Your task to perform on an android device: change the clock display to show seconds Image 0: 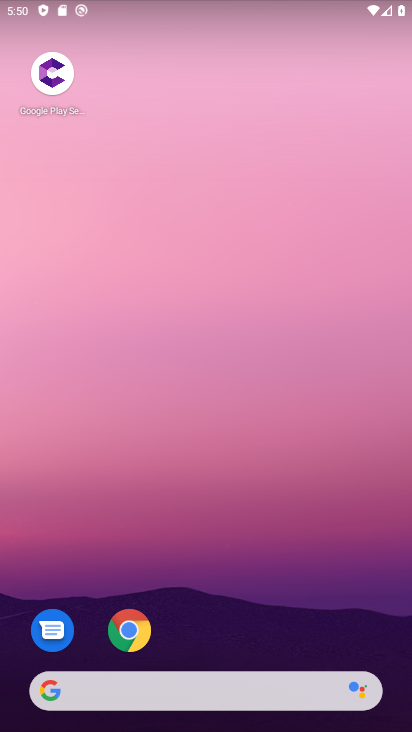
Step 0: drag from (261, 508) to (187, 23)
Your task to perform on an android device: change the clock display to show seconds Image 1: 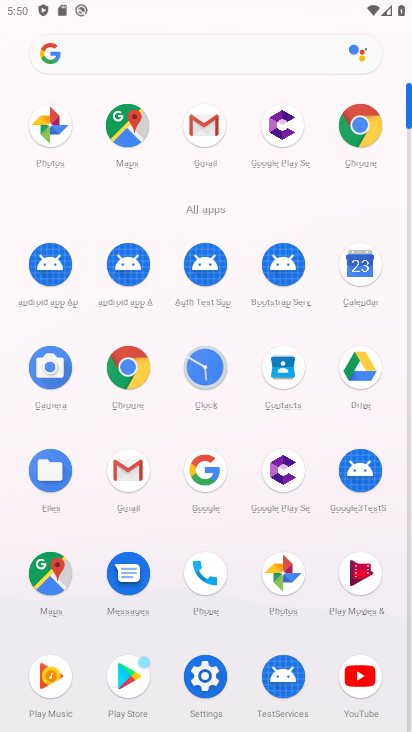
Step 1: drag from (18, 470) to (0, 178)
Your task to perform on an android device: change the clock display to show seconds Image 2: 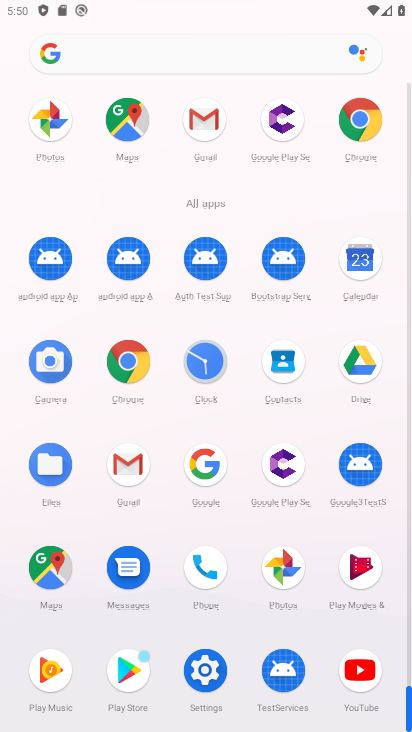
Step 2: click (205, 358)
Your task to perform on an android device: change the clock display to show seconds Image 3: 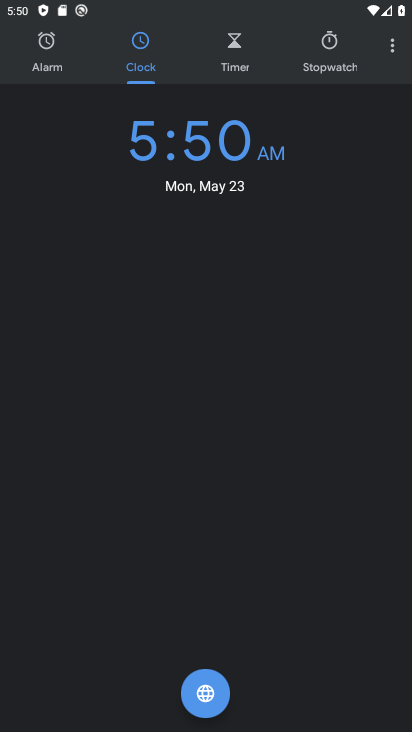
Step 3: drag from (392, 40) to (299, 91)
Your task to perform on an android device: change the clock display to show seconds Image 4: 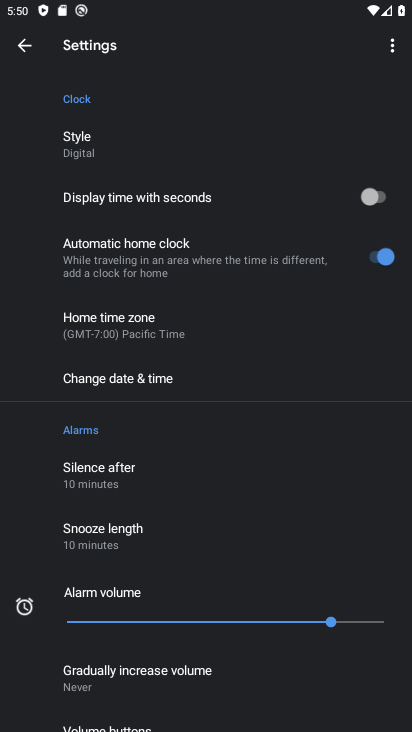
Step 4: drag from (252, 288) to (246, 75)
Your task to perform on an android device: change the clock display to show seconds Image 5: 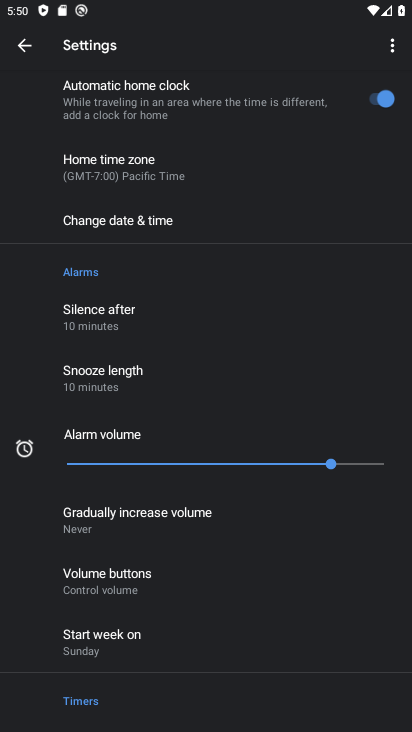
Step 5: drag from (229, 580) to (208, 162)
Your task to perform on an android device: change the clock display to show seconds Image 6: 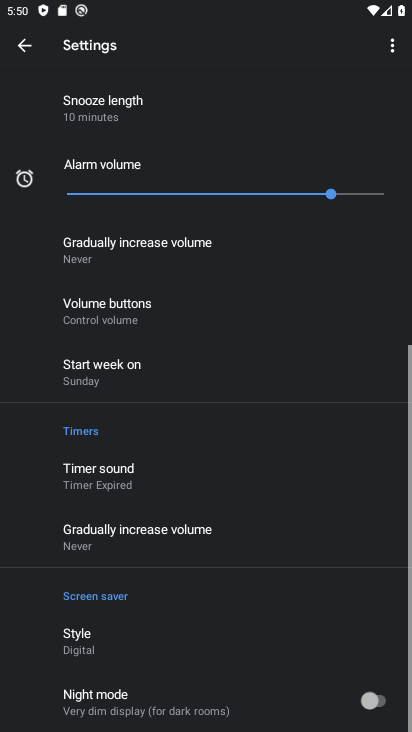
Step 6: drag from (199, 143) to (217, 612)
Your task to perform on an android device: change the clock display to show seconds Image 7: 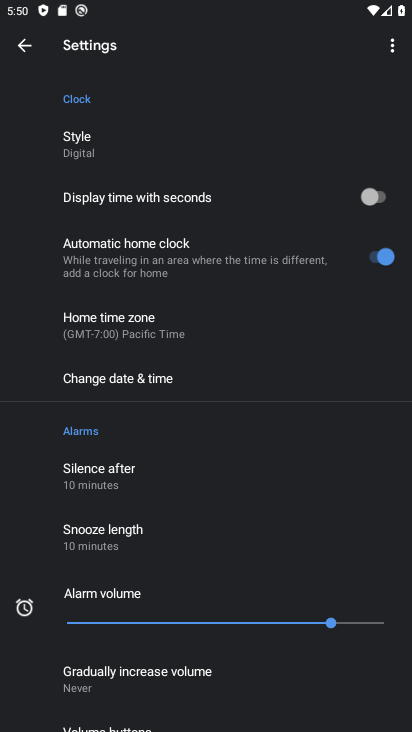
Step 7: drag from (165, 232) to (164, 574)
Your task to perform on an android device: change the clock display to show seconds Image 8: 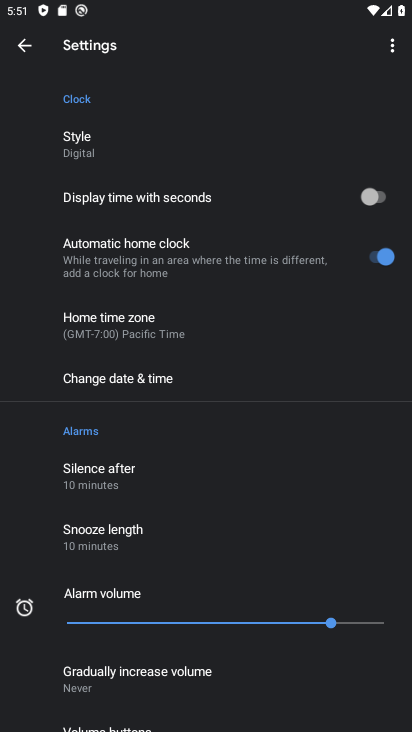
Step 8: drag from (175, 531) to (197, 177)
Your task to perform on an android device: change the clock display to show seconds Image 9: 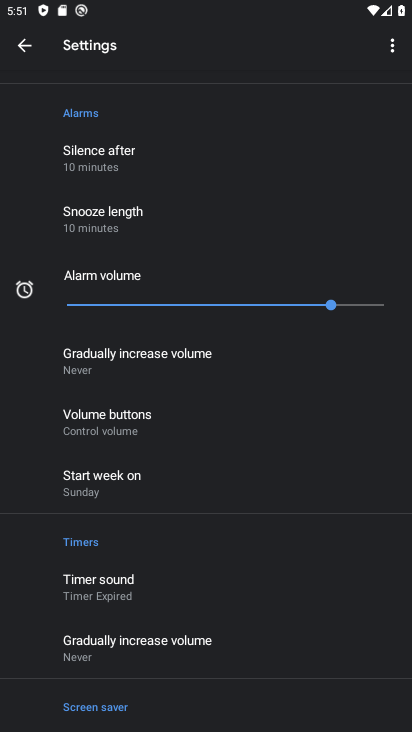
Step 9: drag from (208, 496) to (197, 119)
Your task to perform on an android device: change the clock display to show seconds Image 10: 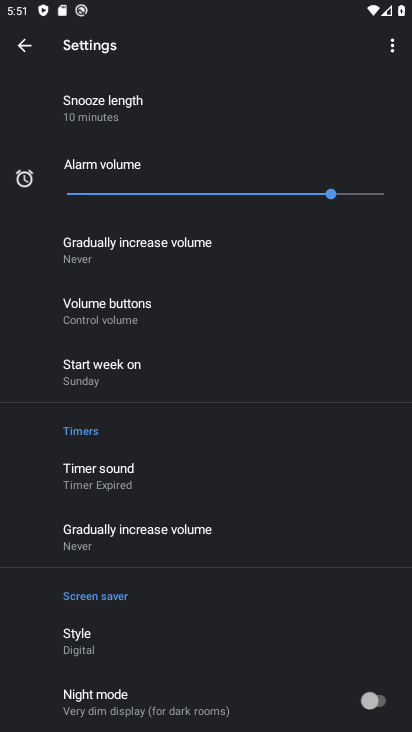
Step 10: drag from (206, 608) to (232, 206)
Your task to perform on an android device: change the clock display to show seconds Image 11: 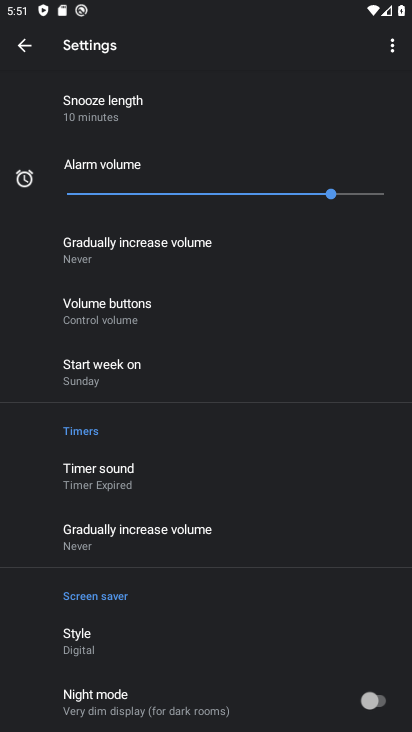
Step 11: drag from (247, 563) to (246, 176)
Your task to perform on an android device: change the clock display to show seconds Image 12: 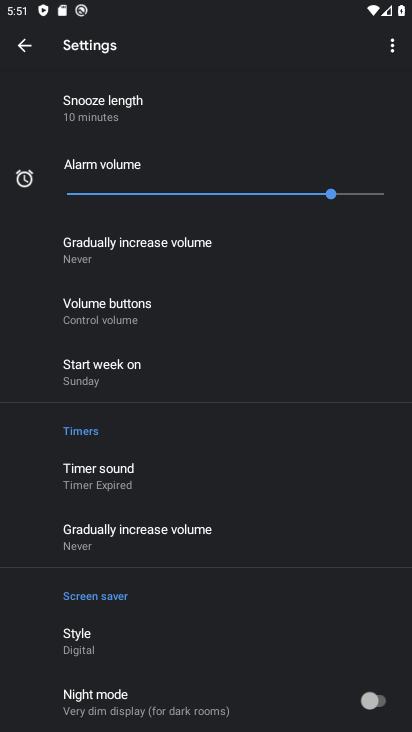
Step 12: drag from (214, 255) to (190, 638)
Your task to perform on an android device: change the clock display to show seconds Image 13: 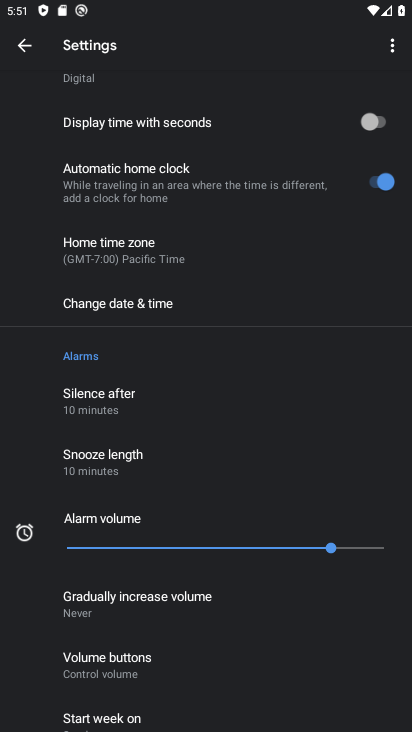
Step 13: drag from (207, 151) to (233, 567)
Your task to perform on an android device: change the clock display to show seconds Image 14: 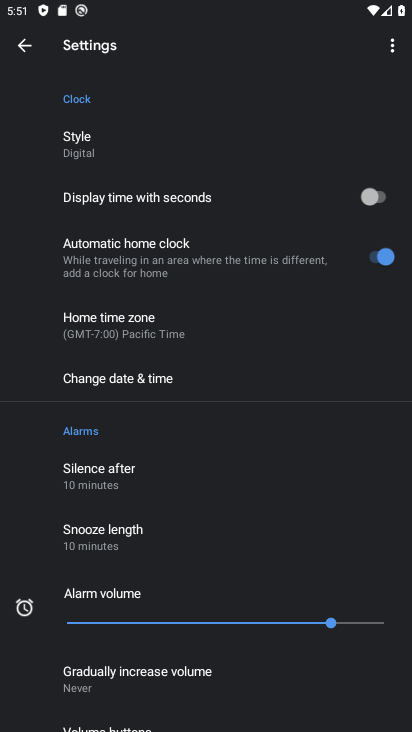
Step 14: click (375, 188)
Your task to perform on an android device: change the clock display to show seconds Image 15: 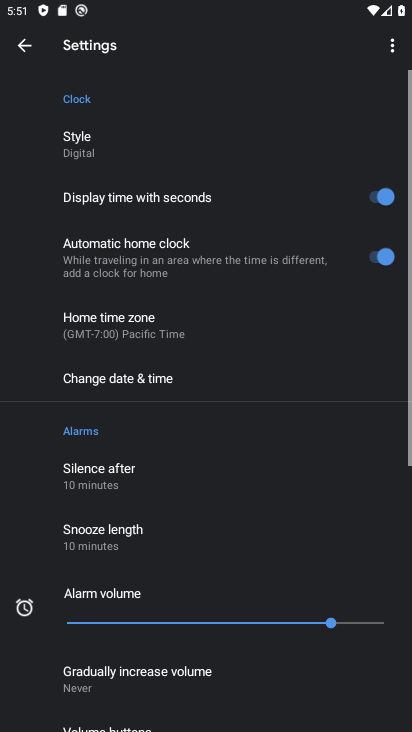
Step 15: task complete